Your task to perform on an android device: turn pop-ups off in chrome Image 0: 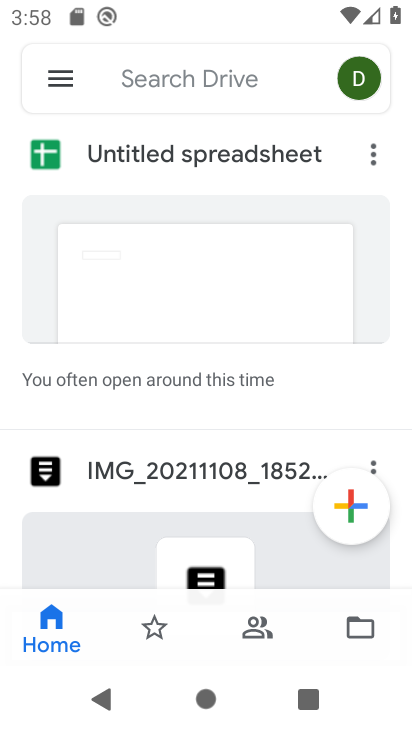
Step 0: press home button
Your task to perform on an android device: turn pop-ups off in chrome Image 1: 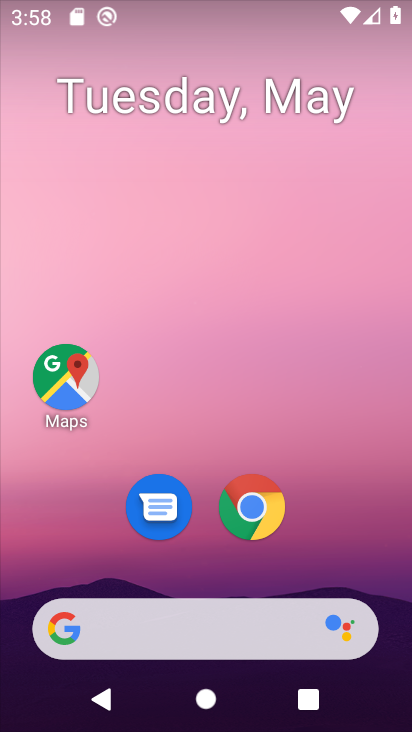
Step 1: drag from (287, 581) to (314, 58)
Your task to perform on an android device: turn pop-ups off in chrome Image 2: 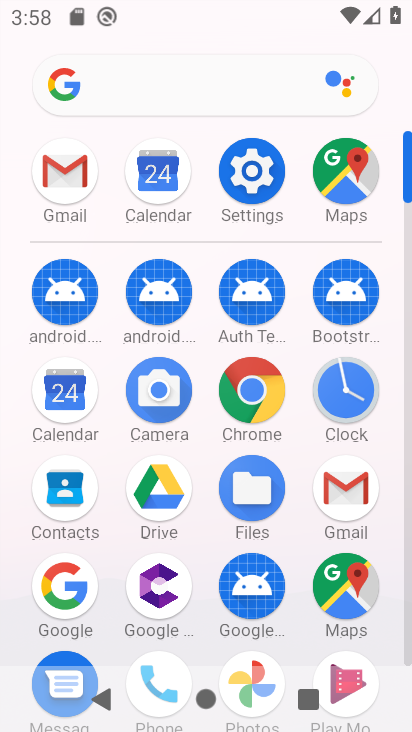
Step 2: click (249, 385)
Your task to perform on an android device: turn pop-ups off in chrome Image 3: 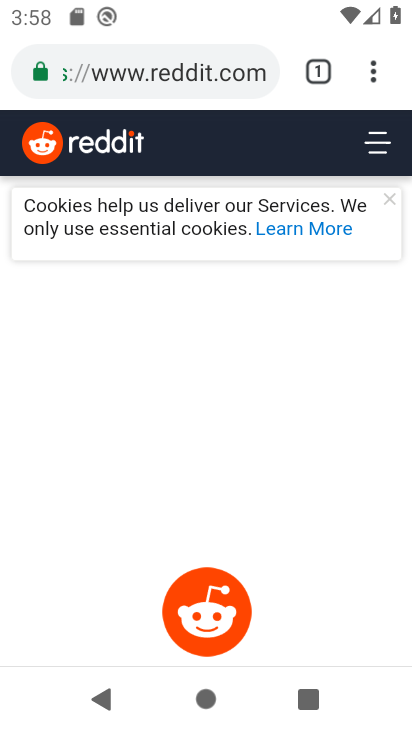
Step 3: click (374, 67)
Your task to perform on an android device: turn pop-ups off in chrome Image 4: 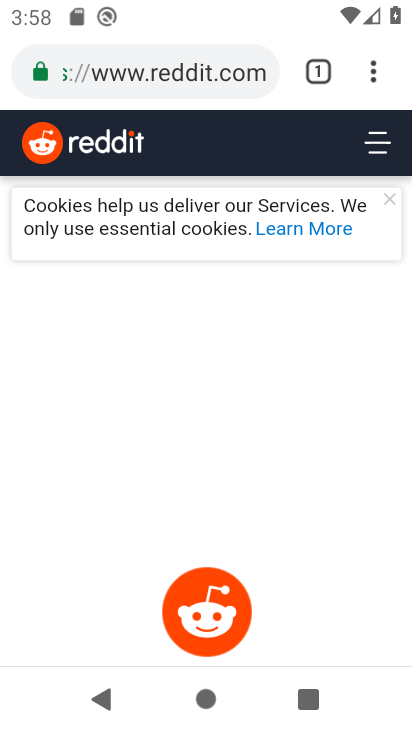
Step 4: click (374, 71)
Your task to perform on an android device: turn pop-ups off in chrome Image 5: 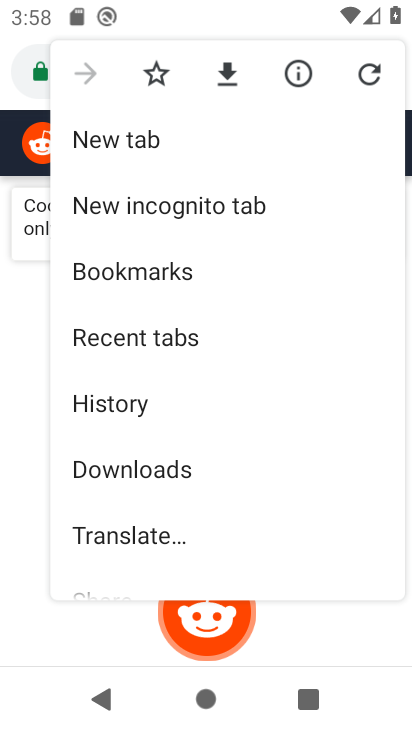
Step 5: drag from (165, 528) to (192, 152)
Your task to perform on an android device: turn pop-ups off in chrome Image 6: 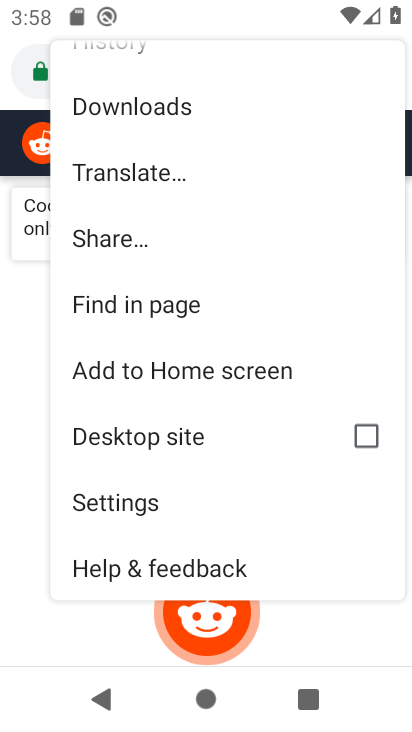
Step 6: click (181, 509)
Your task to perform on an android device: turn pop-ups off in chrome Image 7: 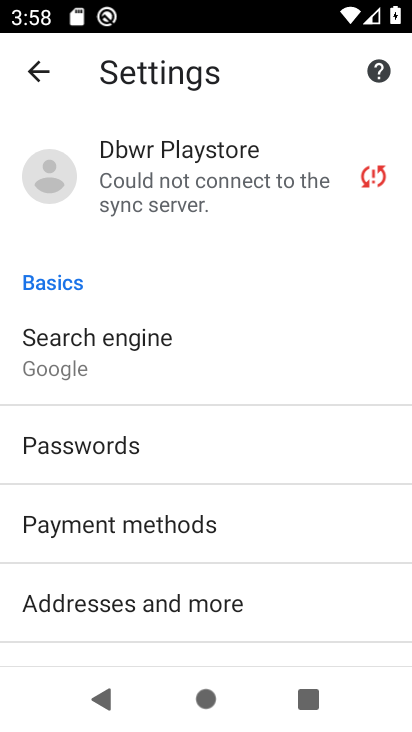
Step 7: drag from (169, 564) to (229, 198)
Your task to perform on an android device: turn pop-ups off in chrome Image 8: 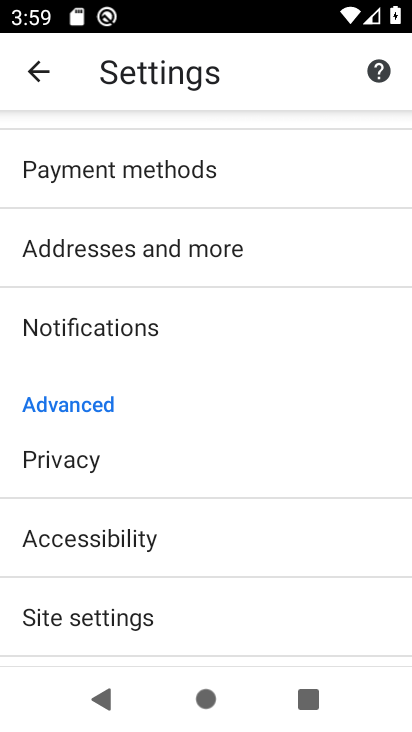
Step 8: click (136, 621)
Your task to perform on an android device: turn pop-ups off in chrome Image 9: 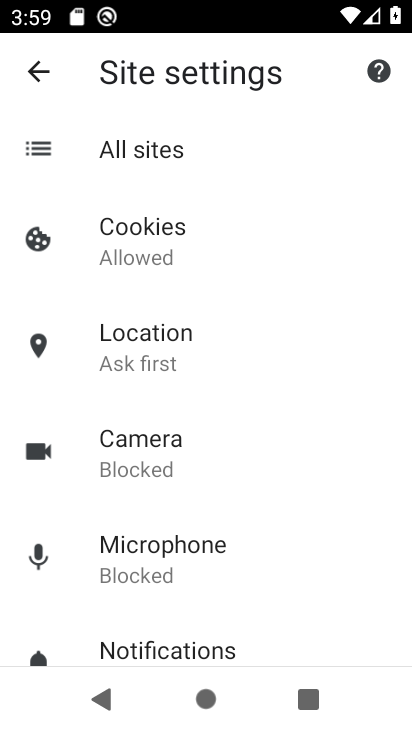
Step 9: drag from (136, 609) to (212, 285)
Your task to perform on an android device: turn pop-ups off in chrome Image 10: 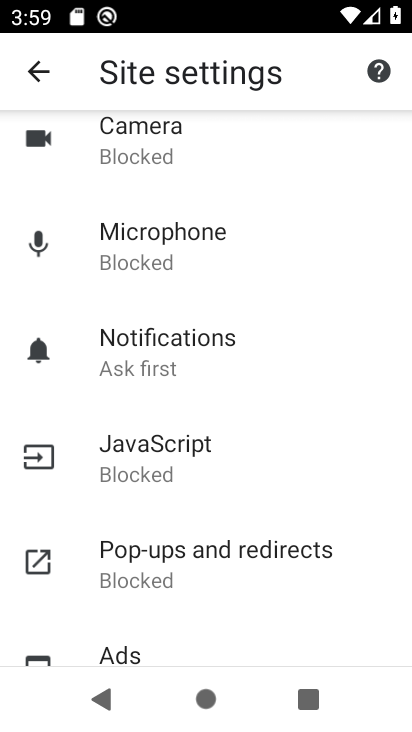
Step 10: click (191, 584)
Your task to perform on an android device: turn pop-ups off in chrome Image 11: 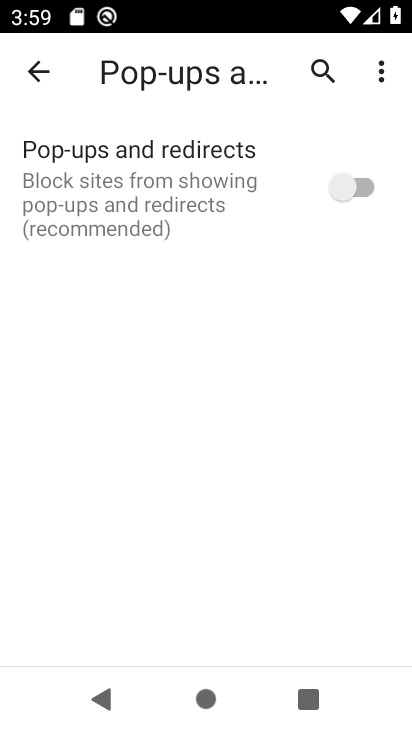
Step 11: task complete